Your task to perform on an android device: Open Google Chrome and click the shortcut for Amazon.com Image 0: 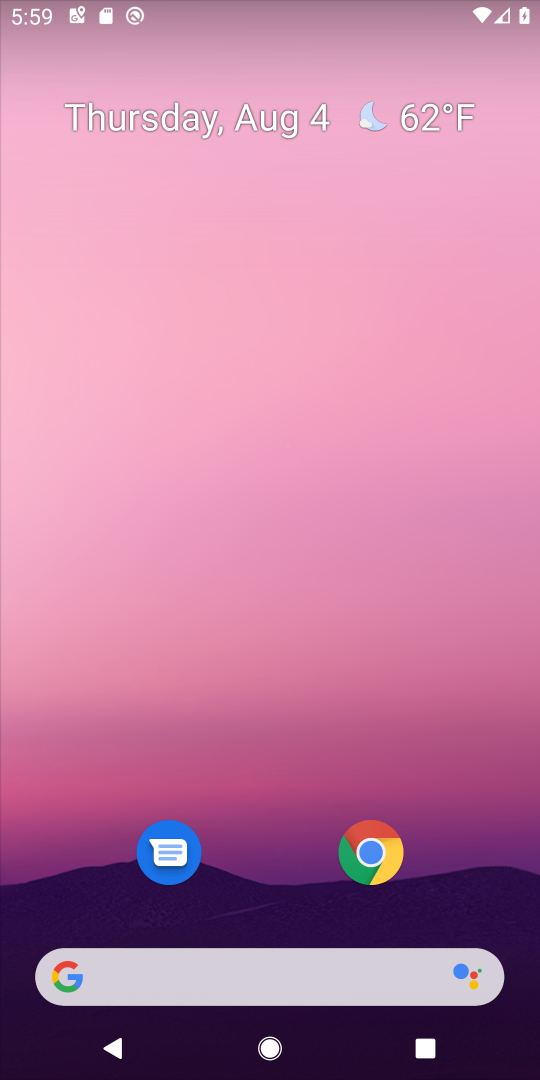
Step 0: click (372, 868)
Your task to perform on an android device: Open Google Chrome and click the shortcut for Amazon.com Image 1: 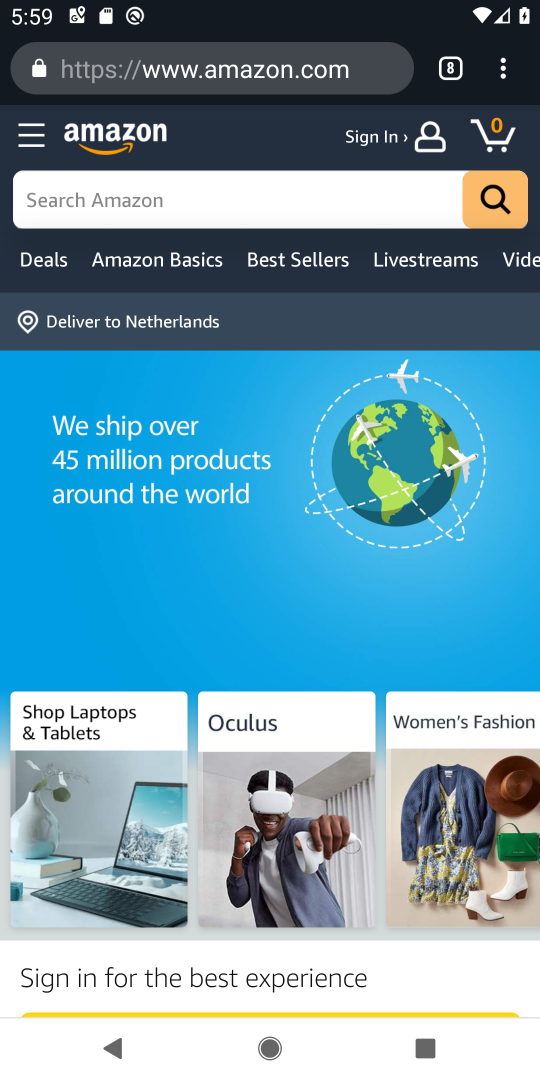
Step 1: task complete